Your task to perform on an android device: Show me productivity apps on the Play Store Image 0: 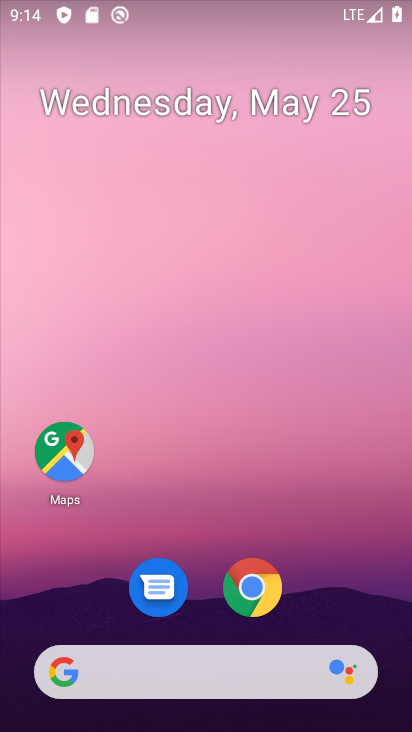
Step 0: drag from (200, 622) to (234, 79)
Your task to perform on an android device: Show me productivity apps on the Play Store Image 1: 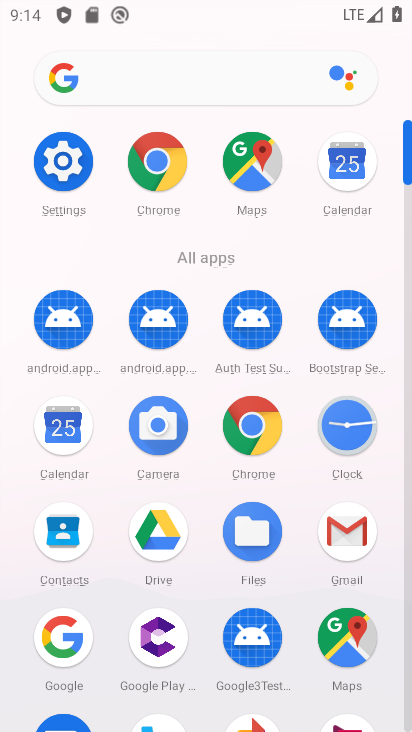
Step 1: drag from (197, 601) to (231, 138)
Your task to perform on an android device: Show me productivity apps on the Play Store Image 2: 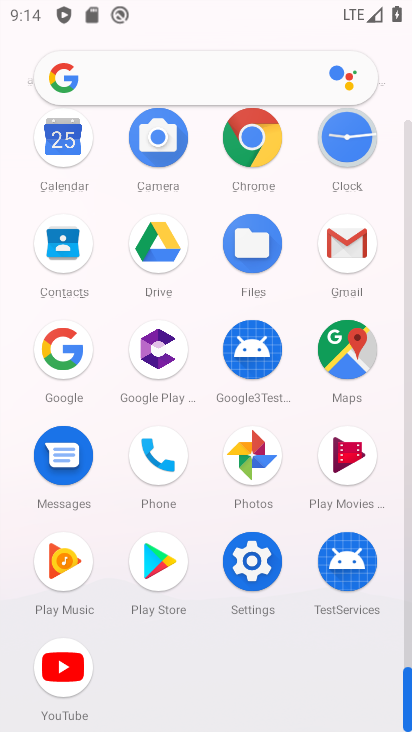
Step 2: click (154, 586)
Your task to perform on an android device: Show me productivity apps on the Play Store Image 3: 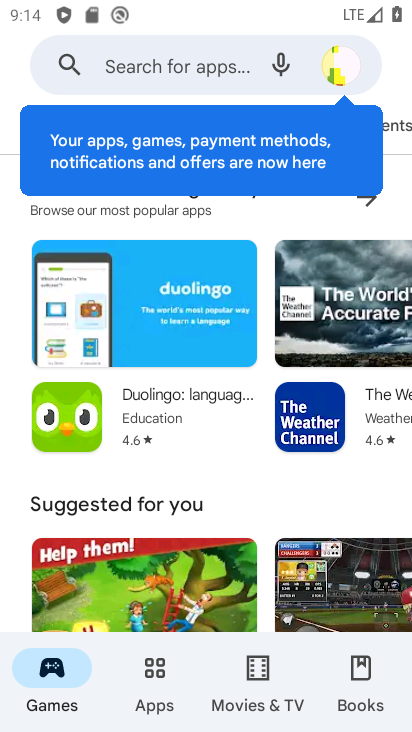
Step 3: click (165, 687)
Your task to perform on an android device: Show me productivity apps on the Play Store Image 4: 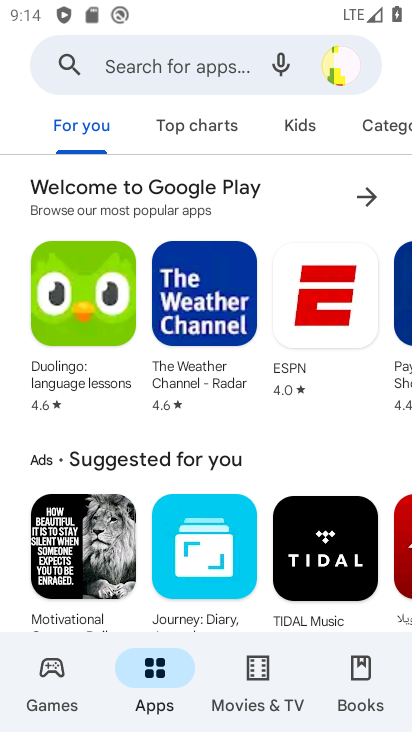
Step 4: click (376, 126)
Your task to perform on an android device: Show me productivity apps on the Play Store Image 5: 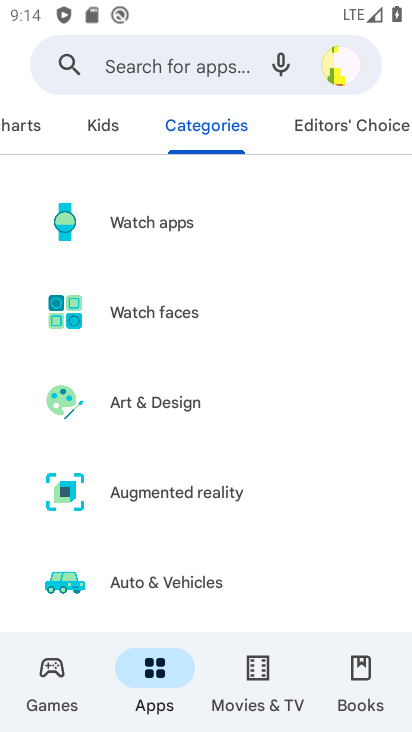
Step 5: drag from (195, 551) to (253, 154)
Your task to perform on an android device: Show me productivity apps on the Play Store Image 6: 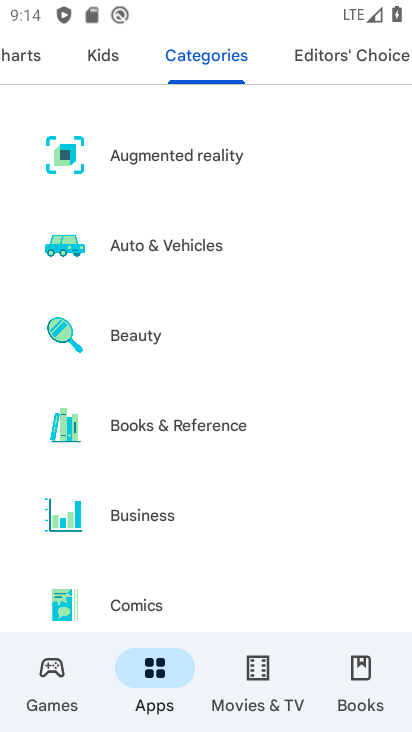
Step 6: drag from (200, 538) to (230, 115)
Your task to perform on an android device: Show me productivity apps on the Play Store Image 7: 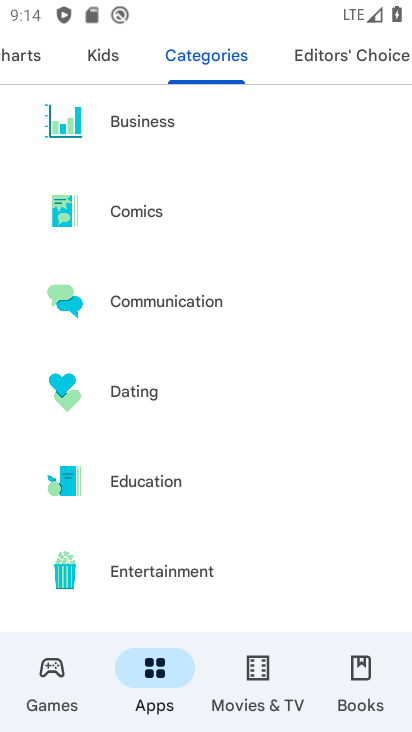
Step 7: drag from (180, 594) to (194, 227)
Your task to perform on an android device: Show me productivity apps on the Play Store Image 8: 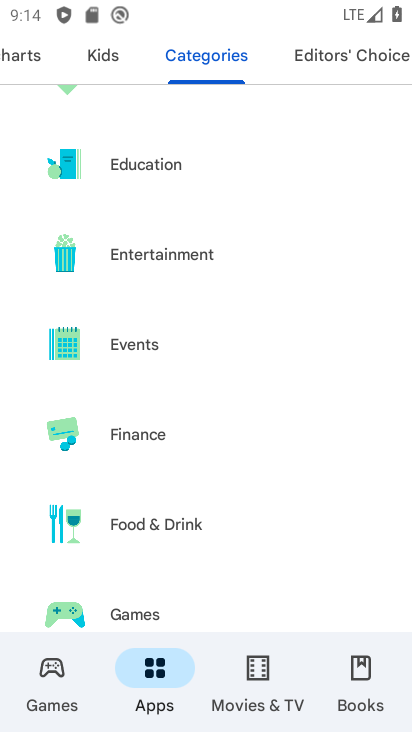
Step 8: drag from (119, 533) to (186, 150)
Your task to perform on an android device: Show me productivity apps on the Play Store Image 9: 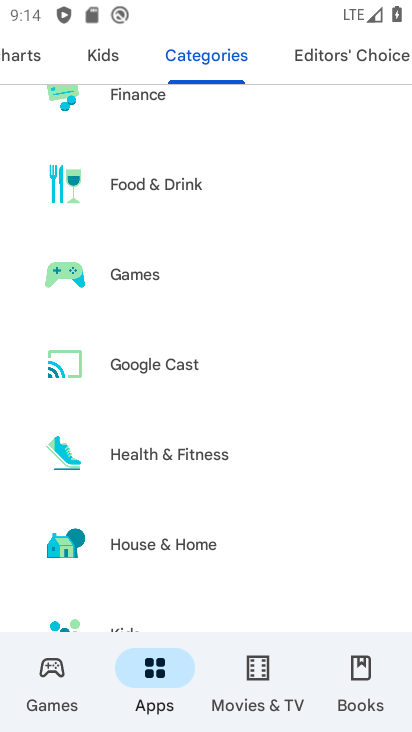
Step 9: drag from (150, 602) to (245, 110)
Your task to perform on an android device: Show me productivity apps on the Play Store Image 10: 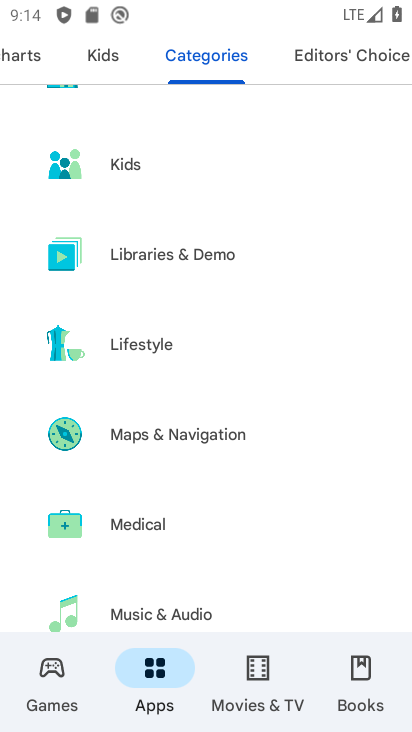
Step 10: drag from (180, 561) to (226, 118)
Your task to perform on an android device: Show me productivity apps on the Play Store Image 11: 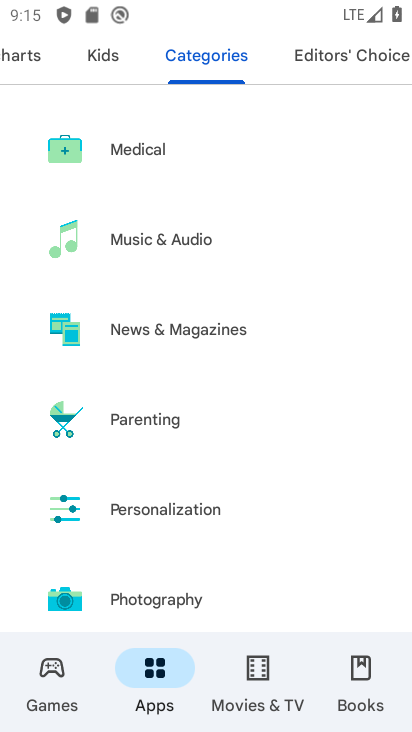
Step 11: drag from (158, 586) to (173, 263)
Your task to perform on an android device: Show me productivity apps on the Play Store Image 12: 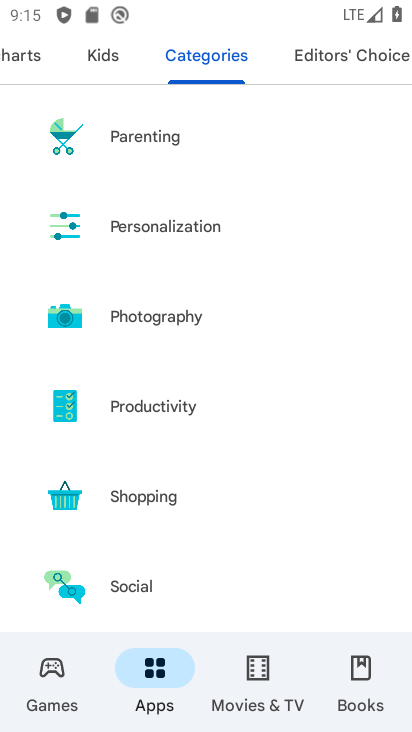
Step 12: click (171, 417)
Your task to perform on an android device: Show me productivity apps on the Play Store Image 13: 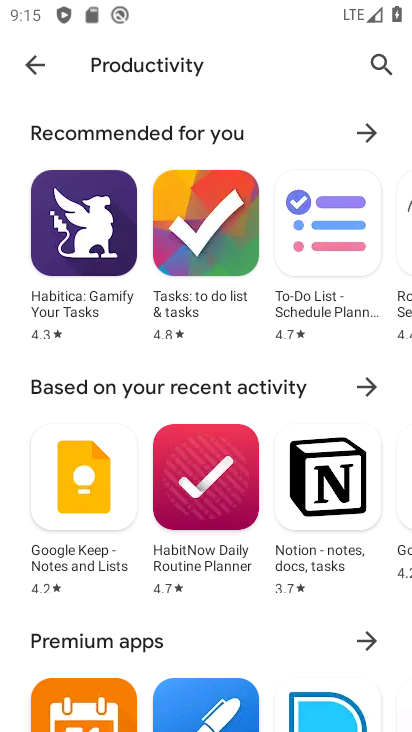
Step 13: task complete